Your task to perform on an android device: Go to Android settings Image 0: 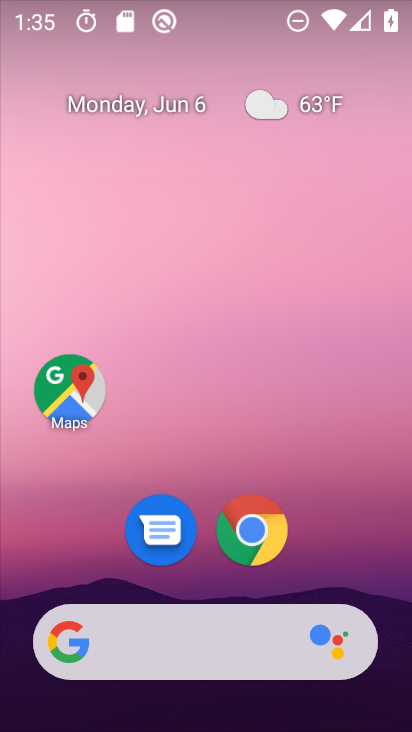
Step 0: drag from (321, 518) to (146, 13)
Your task to perform on an android device: Go to Android settings Image 1: 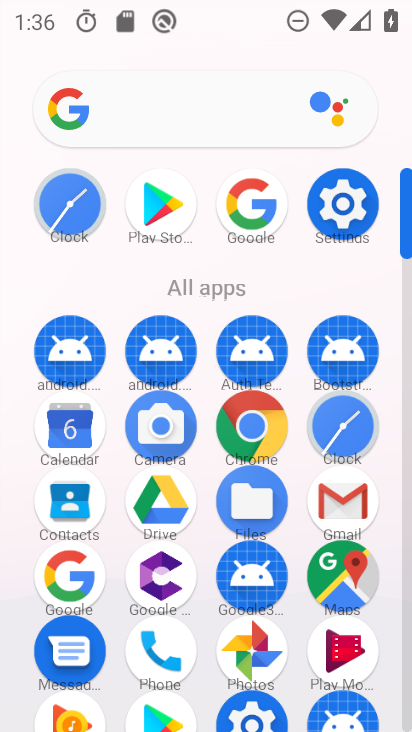
Step 1: click (342, 203)
Your task to perform on an android device: Go to Android settings Image 2: 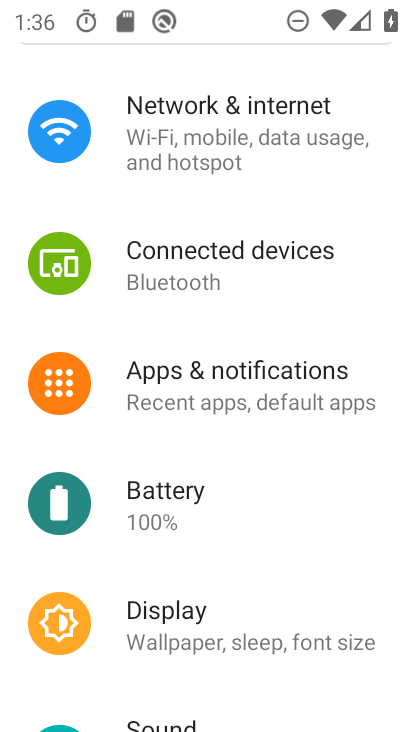
Step 2: task complete